Your task to perform on an android device: Open accessibility settings Image 0: 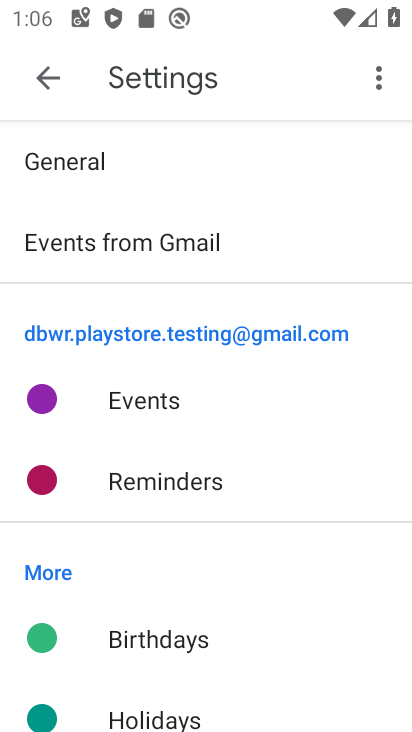
Step 0: press home button
Your task to perform on an android device: Open accessibility settings Image 1: 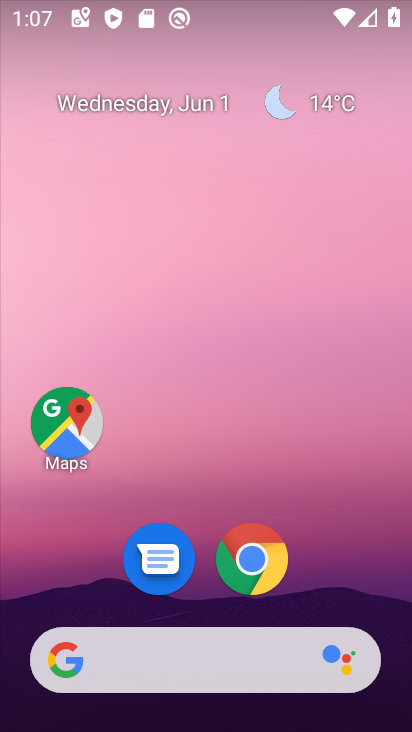
Step 1: drag from (394, 693) to (353, 122)
Your task to perform on an android device: Open accessibility settings Image 2: 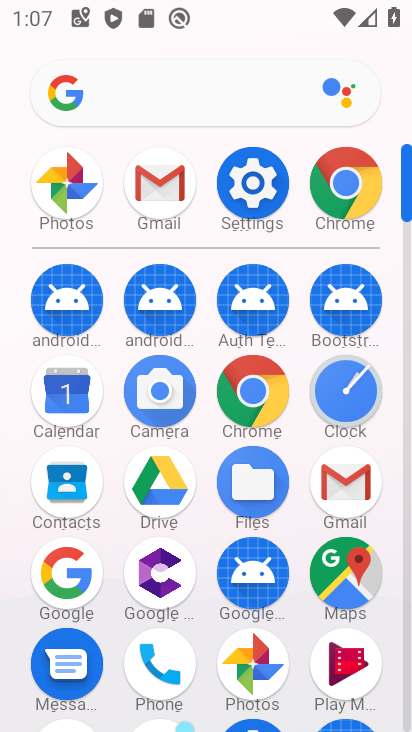
Step 2: click (247, 196)
Your task to perform on an android device: Open accessibility settings Image 3: 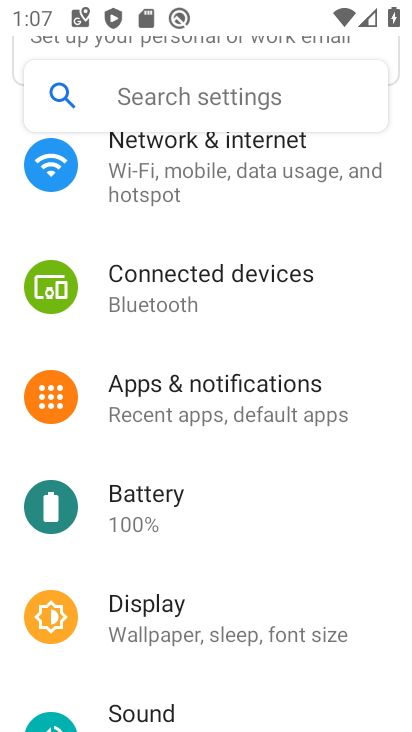
Step 3: drag from (249, 671) to (237, 339)
Your task to perform on an android device: Open accessibility settings Image 4: 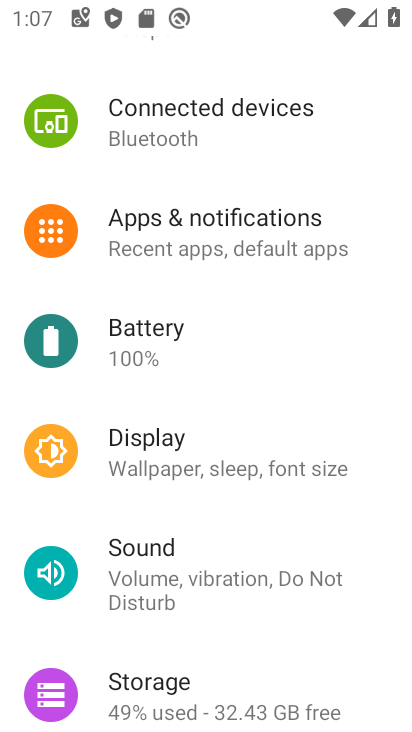
Step 4: drag from (312, 638) to (287, 354)
Your task to perform on an android device: Open accessibility settings Image 5: 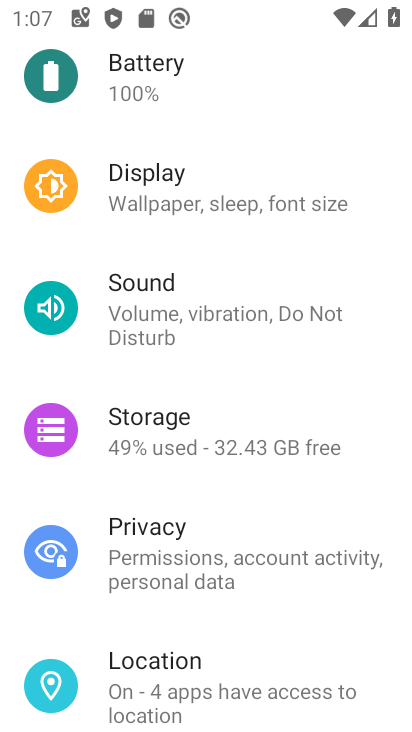
Step 5: drag from (268, 678) to (265, 387)
Your task to perform on an android device: Open accessibility settings Image 6: 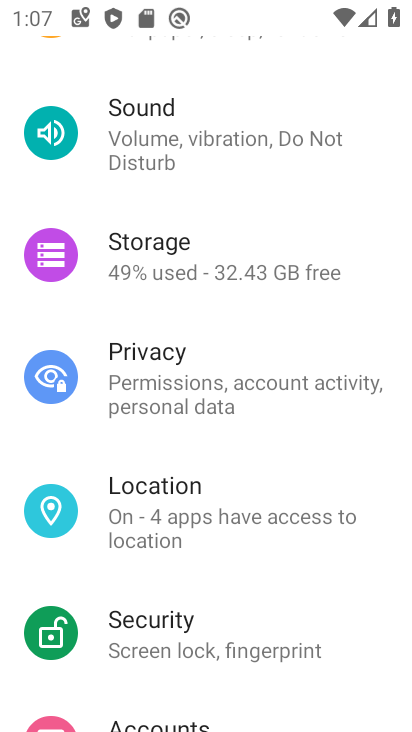
Step 6: drag from (258, 681) to (264, 348)
Your task to perform on an android device: Open accessibility settings Image 7: 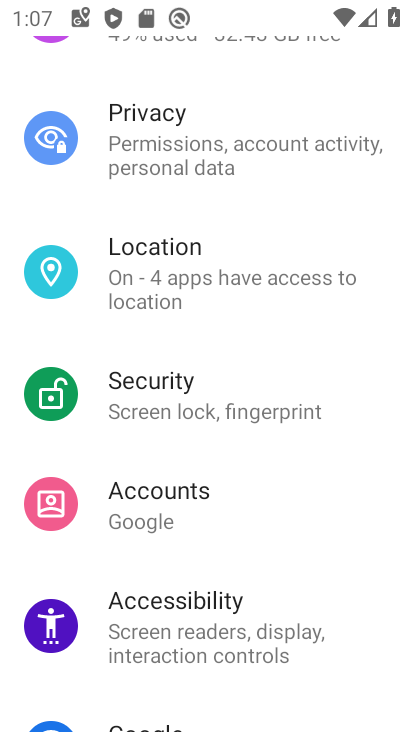
Step 7: click (192, 627)
Your task to perform on an android device: Open accessibility settings Image 8: 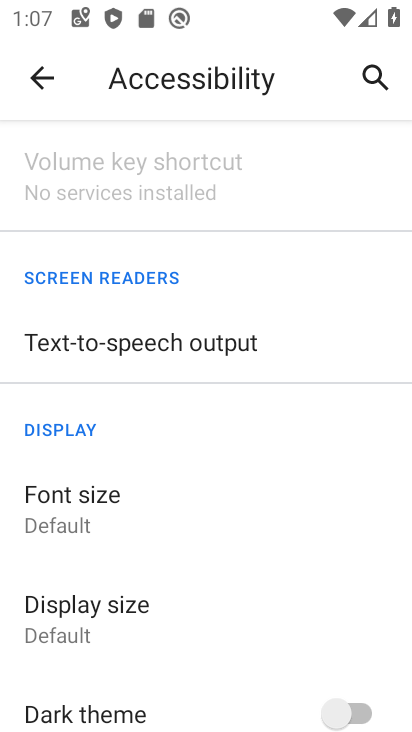
Step 8: task complete